Your task to perform on an android device: toggle translation in the chrome app Image 0: 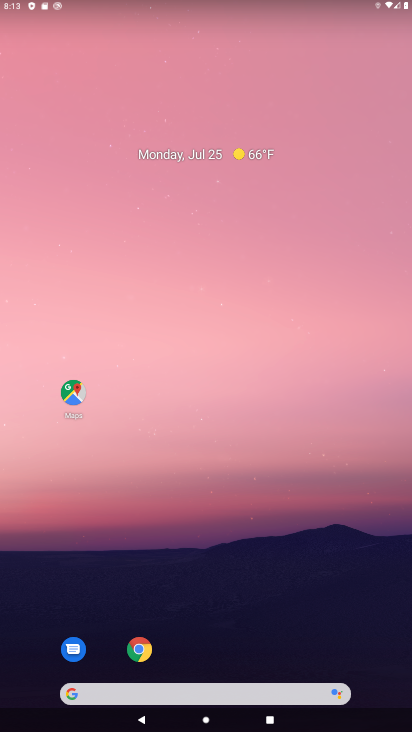
Step 0: click (144, 649)
Your task to perform on an android device: toggle translation in the chrome app Image 1: 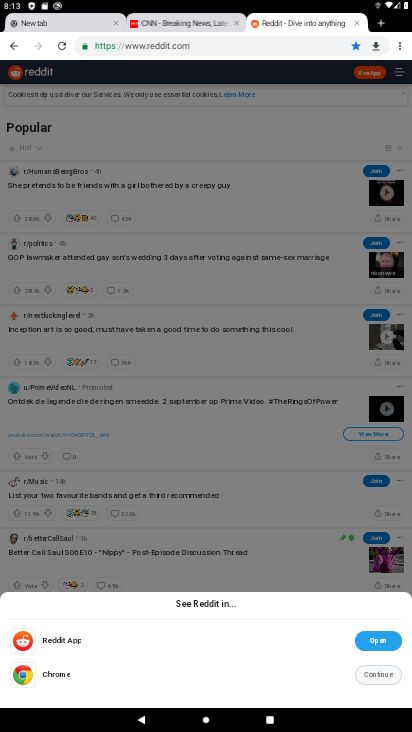
Step 1: click (401, 46)
Your task to perform on an android device: toggle translation in the chrome app Image 2: 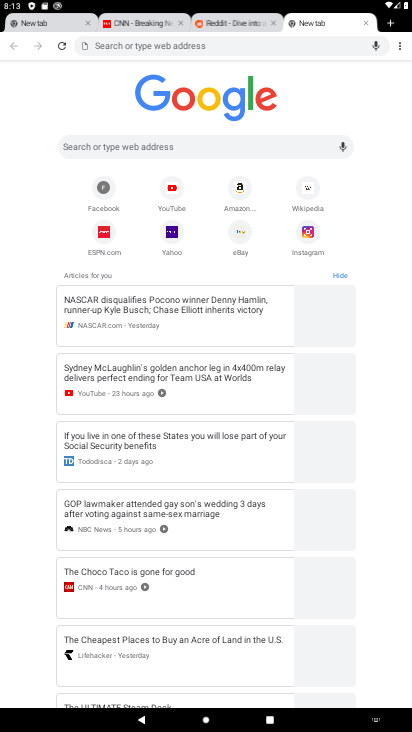
Step 2: click (396, 47)
Your task to perform on an android device: toggle translation in the chrome app Image 3: 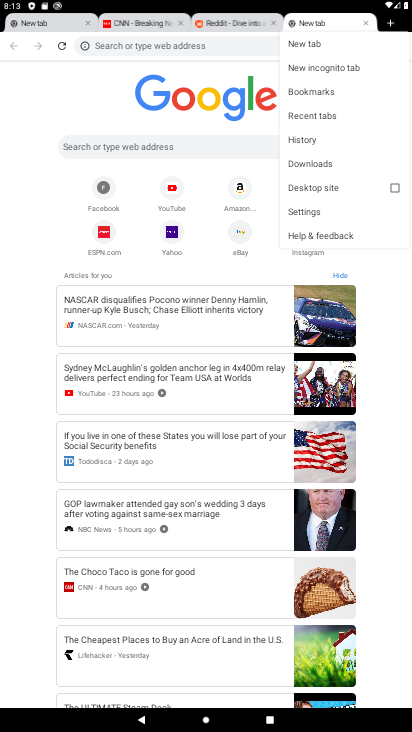
Step 3: click (334, 215)
Your task to perform on an android device: toggle translation in the chrome app Image 4: 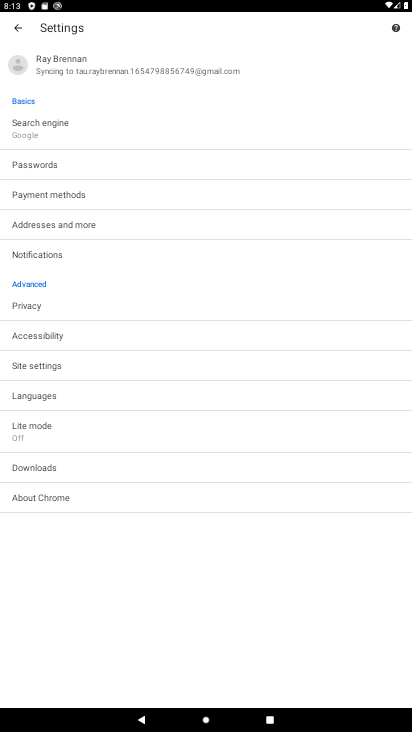
Step 4: click (99, 393)
Your task to perform on an android device: toggle translation in the chrome app Image 5: 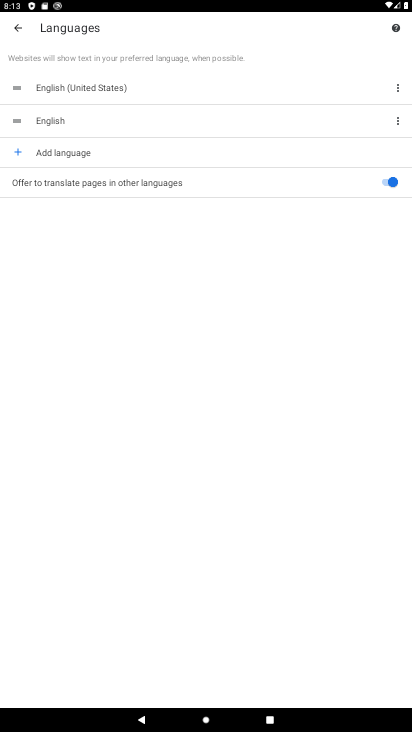
Step 5: click (375, 178)
Your task to perform on an android device: toggle translation in the chrome app Image 6: 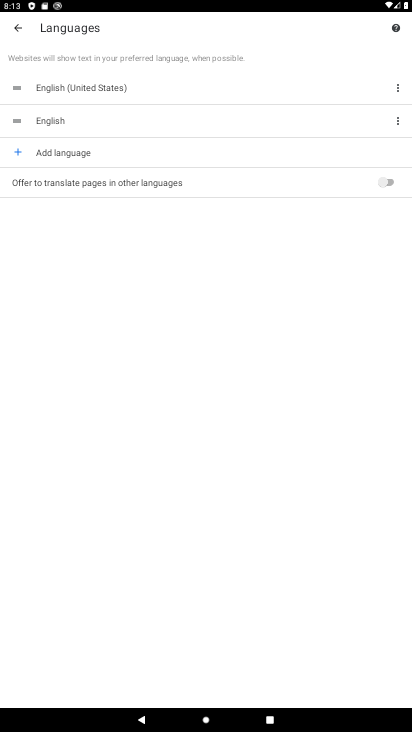
Step 6: task complete